Your task to perform on an android device: Open maps Image 0: 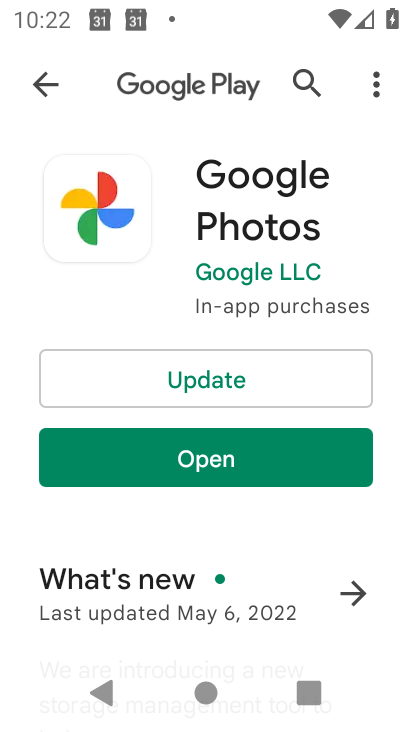
Step 0: press home button
Your task to perform on an android device: Open maps Image 1: 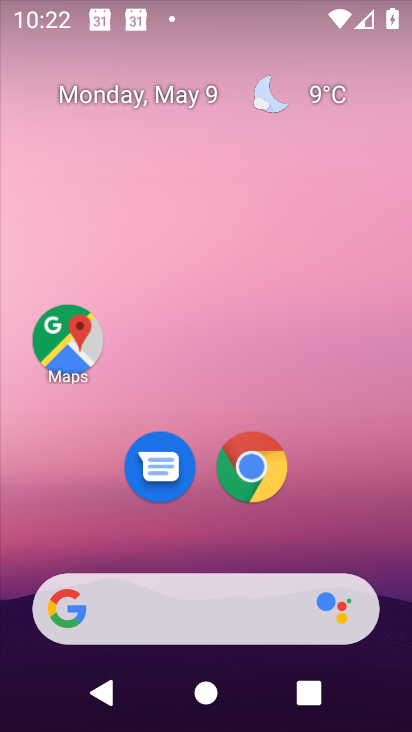
Step 1: click (65, 343)
Your task to perform on an android device: Open maps Image 2: 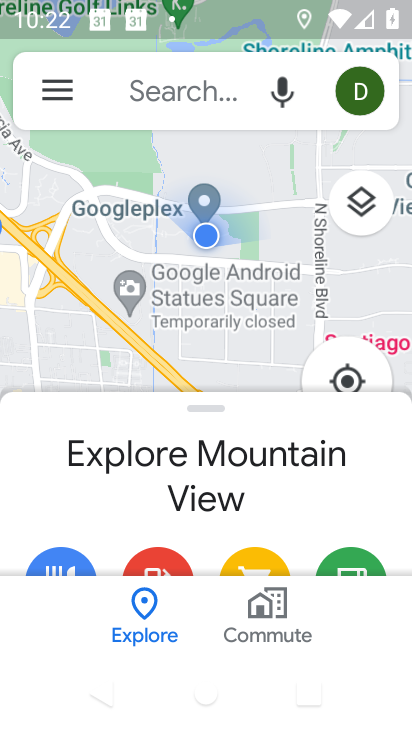
Step 2: task complete